Your task to perform on an android device: Search for the best rated soccer ball on AliExpress Image 0: 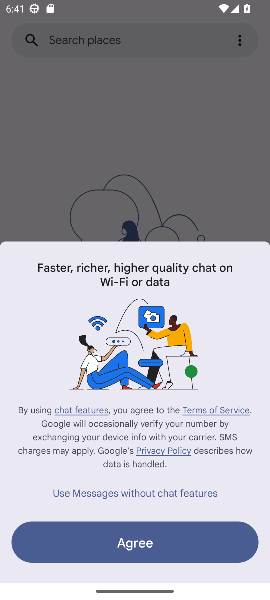
Step 0: press home button
Your task to perform on an android device: Search for the best rated soccer ball on AliExpress Image 1: 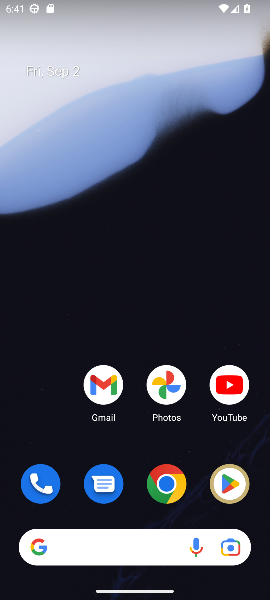
Step 1: click (163, 475)
Your task to perform on an android device: Search for the best rated soccer ball on AliExpress Image 2: 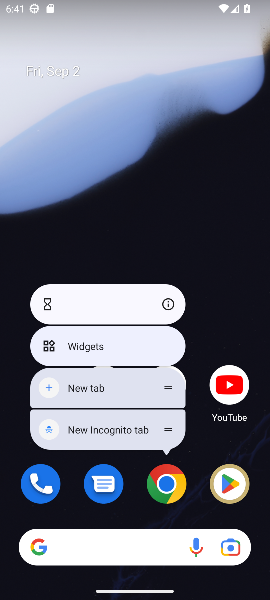
Step 2: click (163, 475)
Your task to perform on an android device: Search for the best rated soccer ball on AliExpress Image 3: 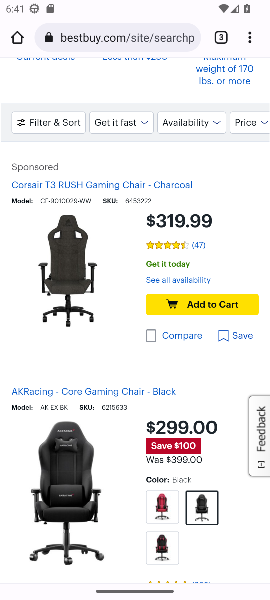
Step 3: click (141, 37)
Your task to perform on an android device: Search for the best rated soccer ball on AliExpress Image 4: 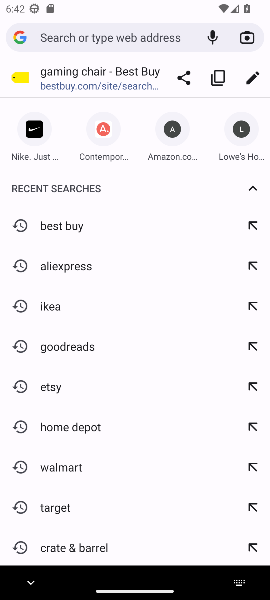
Step 4: type "AliExpress"
Your task to perform on an android device: Search for the best rated soccer ball on AliExpress Image 5: 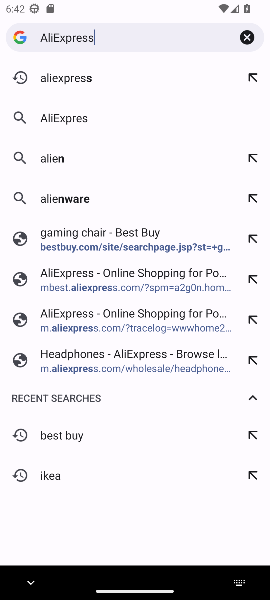
Step 5: press enter
Your task to perform on an android device: Search for the best rated soccer ball on AliExpress Image 6: 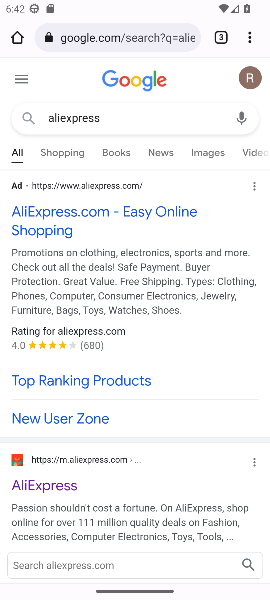
Step 6: click (67, 478)
Your task to perform on an android device: Search for the best rated soccer ball on AliExpress Image 7: 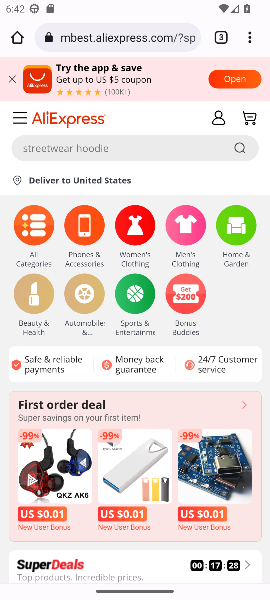
Step 7: click (150, 150)
Your task to perform on an android device: Search for the best rated soccer ball on AliExpress Image 8: 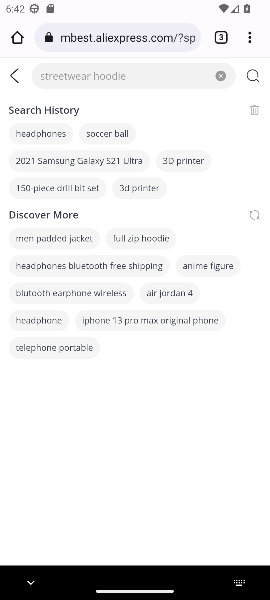
Step 8: type "soccer ball"
Your task to perform on an android device: Search for the best rated soccer ball on AliExpress Image 9: 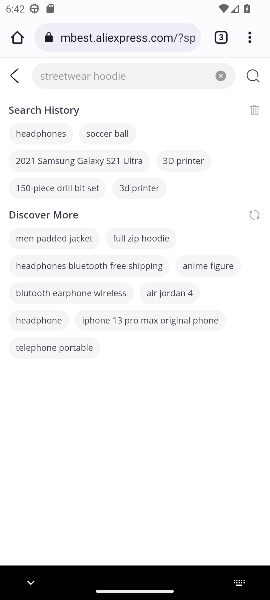
Step 9: press enter
Your task to perform on an android device: Search for the best rated soccer ball on AliExpress Image 10: 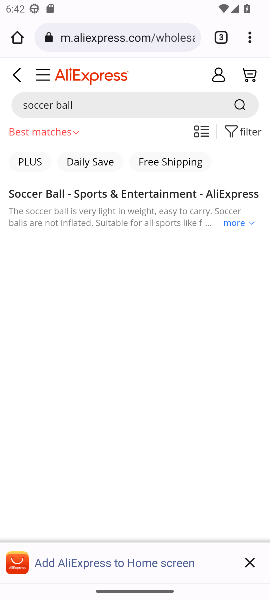
Step 10: drag from (146, 471) to (202, 296)
Your task to perform on an android device: Search for the best rated soccer ball on AliExpress Image 11: 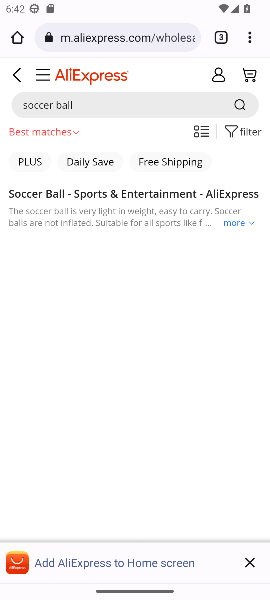
Step 11: click (177, 188)
Your task to perform on an android device: Search for the best rated soccer ball on AliExpress Image 12: 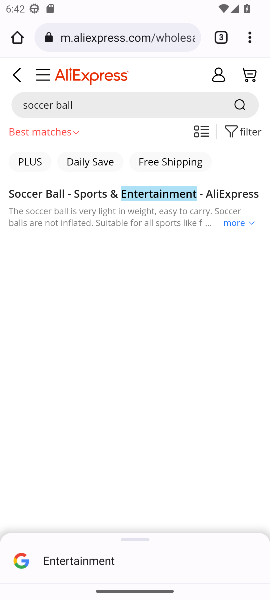
Step 12: click (131, 286)
Your task to perform on an android device: Search for the best rated soccer ball on AliExpress Image 13: 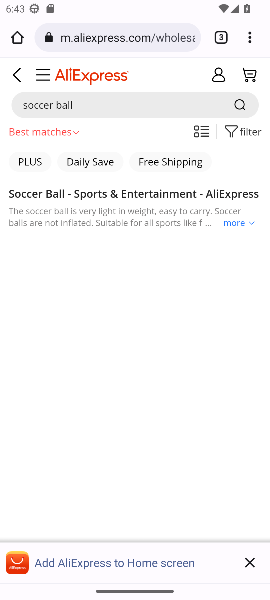
Step 13: click (247, 559)
Your task to perform on an android device: Search for the best rated soccer ball on AliExpress Image 14: 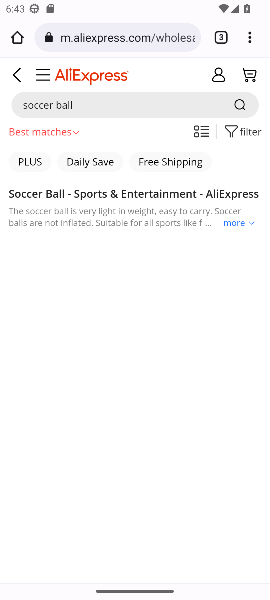
Step 14: click (239, 219)
Your task to perform on an android device: Search for the best rated soccer ball on AliExpress Image 15: 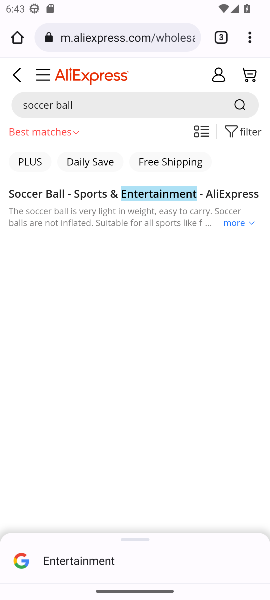
Step 15: click (250, 221)
Your task to perform on an android device: Search for the best rated soccer ball on AliExpress Image 16: 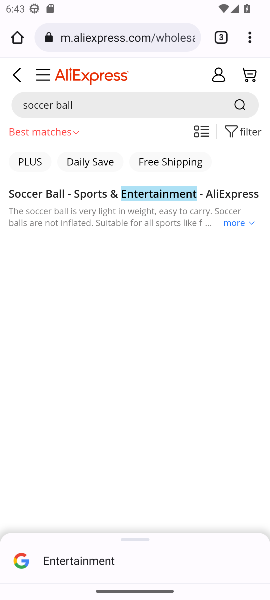
Step 16: click (252, 220)
Your task to perform on an android device: Search for the best rated soccer ball on AliExpress Image 17: 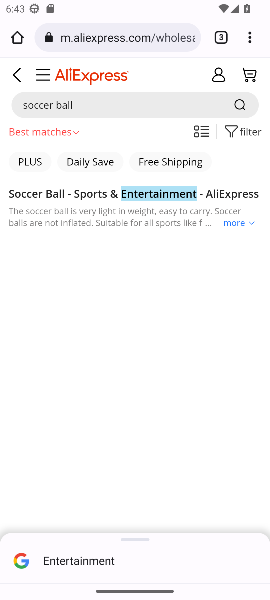
Step 17: press back button
Your task to perform on an android device: Search for the best rated soccer ball on AliExpress Image 18: 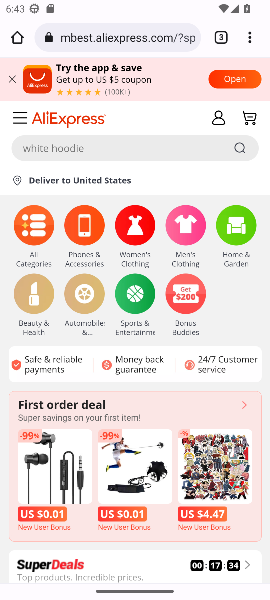
Step 18: click (144, 146)
Your task to perform on an android device: Search for the best rated soccer ball on AliExpress Image 19: 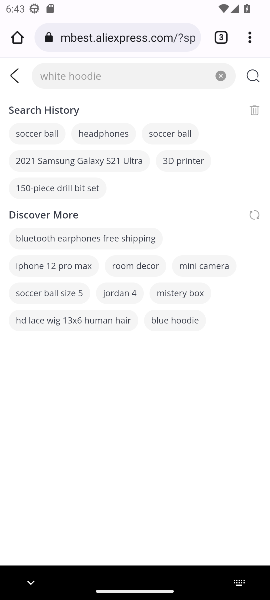
Step 19: click (45, 132)
Your task to perform on an android device: Search for the best rated soccer ball on AliExpress Image 20: 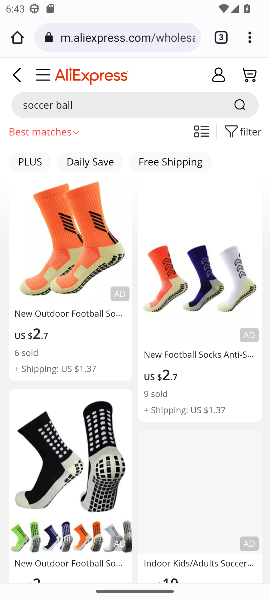
Step 20: drag from (138, 495) to (236, 145)
Your task to perform on an android device: Search for the best rated soccer ball on AliExpress Image 21: 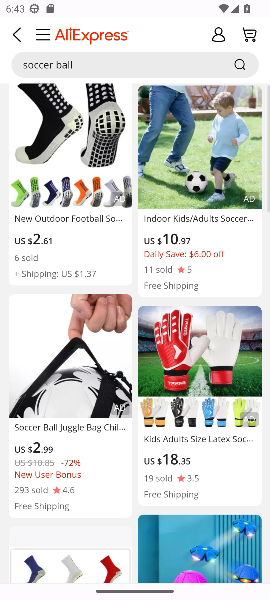
Step 21: drag from (121, 480) to (202, 220)
Your task to perform on an android device: Search for the best rated soccer ball on AliExpress Image 22: 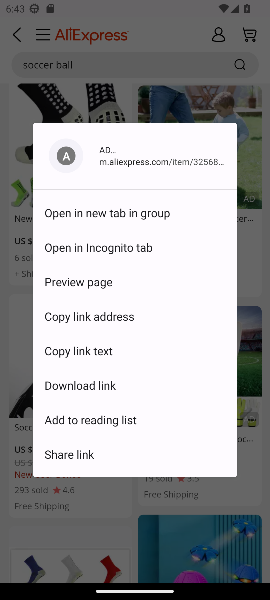
Step 22: click (246, 457)
Your task to perform on an android device: Search for the best rated soccer ball on AliExpress Image 23: 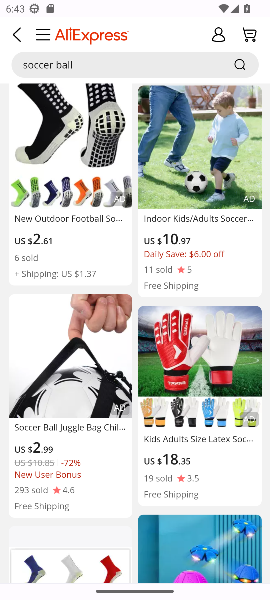
Step 23: task complete